Your task to perform on an android device: find which apps use the phone's location Image 0: 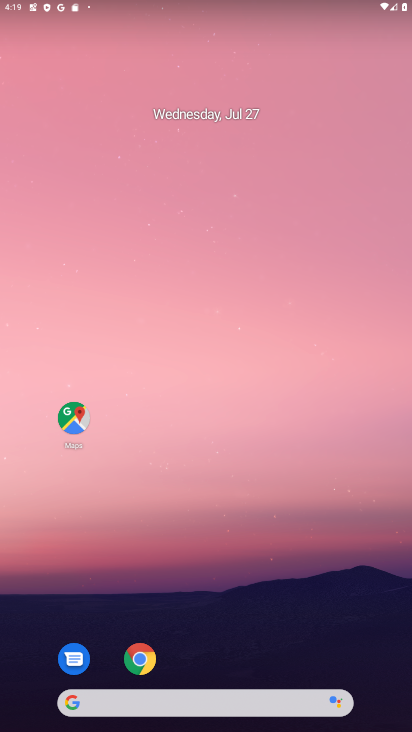
Step 0: drag from (292, 643) to (237, 70)
Your task to perform on an android device: find which apps use the phone's location Image 1: 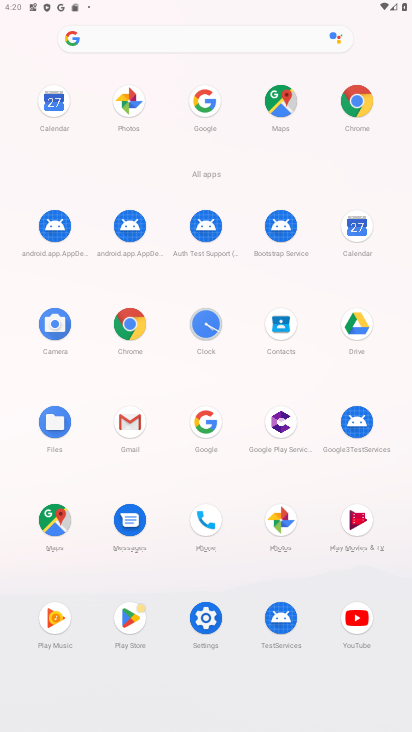
Step 1: click (204, 615)
Your task to perform on an android device: find which apps use the phone's location Image 2: 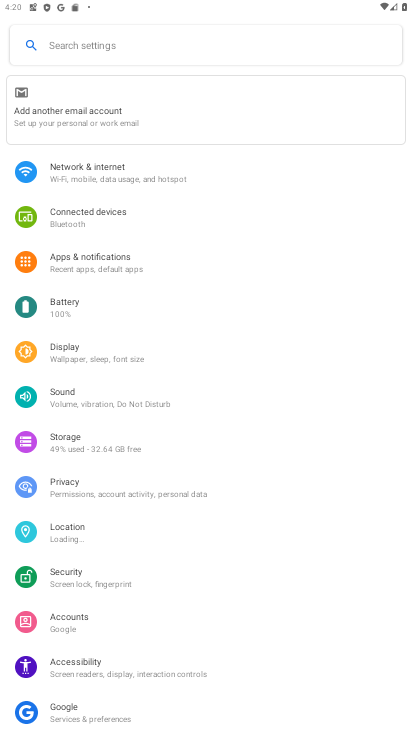
Step 2: click (125, 538)
Your task to perform on an android device: find which apps use the phone's location Image 3: 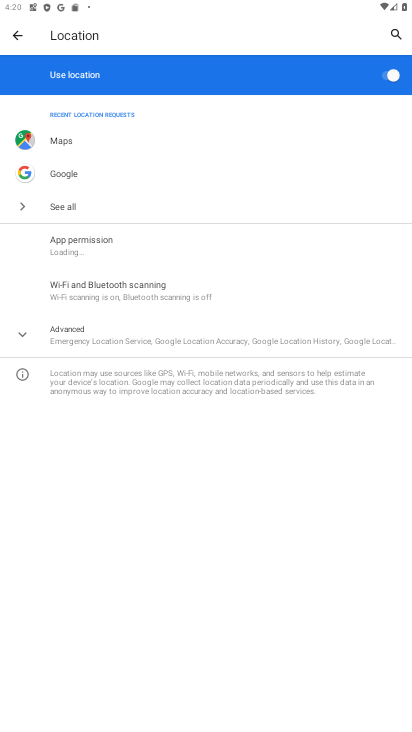
Step 3: click (88, 233)
Your task to perform on an android device: find which apps use the phone's location Image 4: 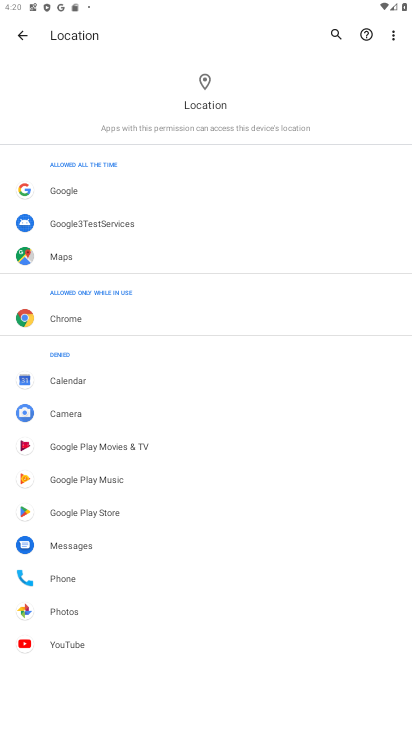
Step 4: task complete